Your task to perform on an android device: star an email in the gmail app Image 0: 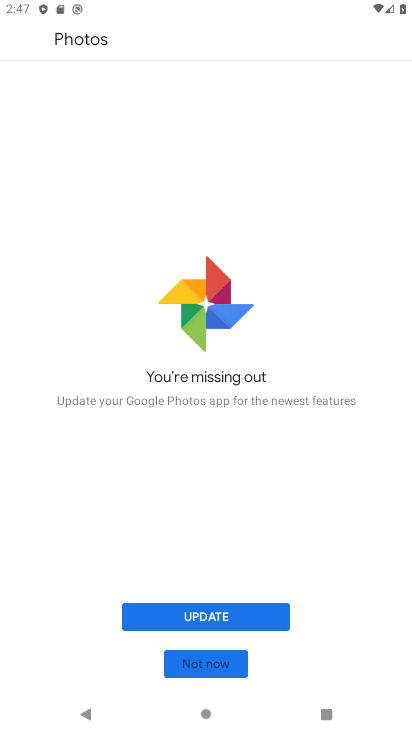
Step 0: press home button
Your task to perform on an android device: star an email in the gmail app Image 1: 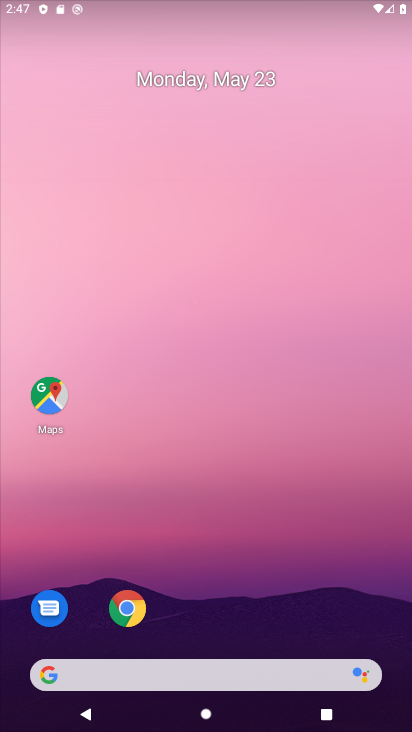
Step 1: drag from (253, 540) to (315, 209)
Your task to perform on an android device: star an email in the gmail app Image 2: 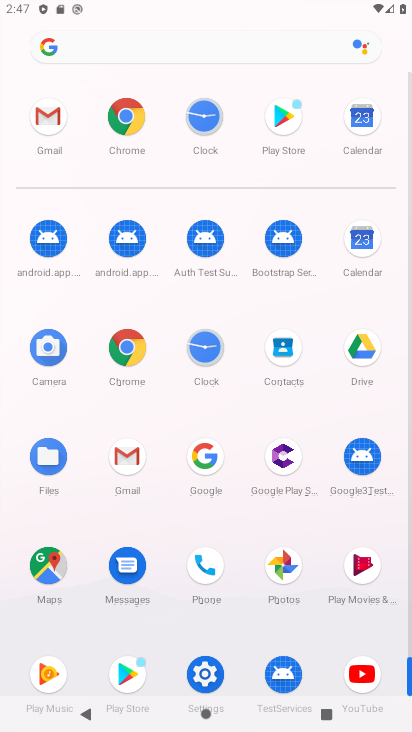
Step 2: click (119, 456)
Your task to perform on an android device: star an email in the gmail app Image 3: 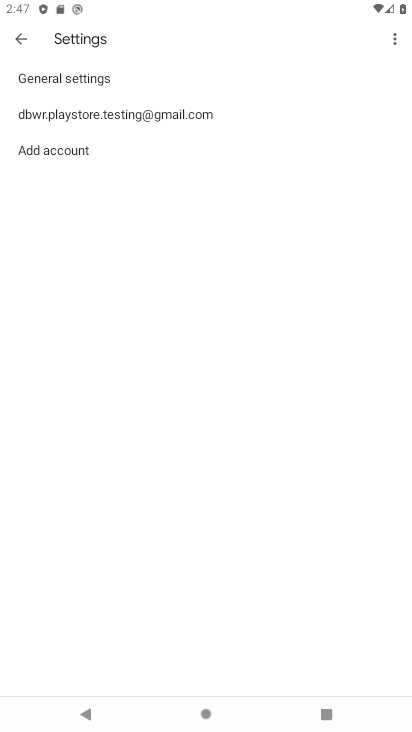
Step 3: click (20, 45)
Your task to perform on an android device: star an email in the gmail app Image 4: 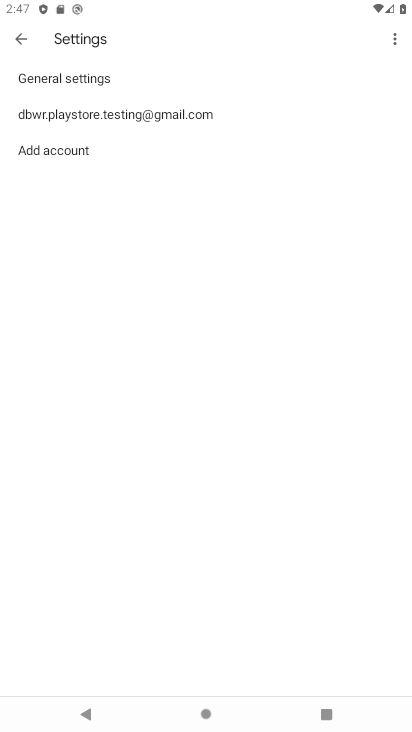
Step 4: click (27, 43)
Your task to perform on an android device: star an email in the gmail app Image 5: 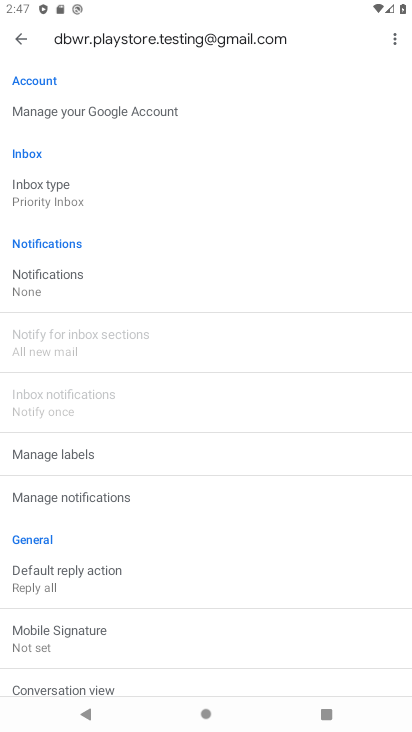
Step 5: drag from (150, 173) to (165, 549)
Your task to perform on an android device: star an email in the gmail app Image 6: 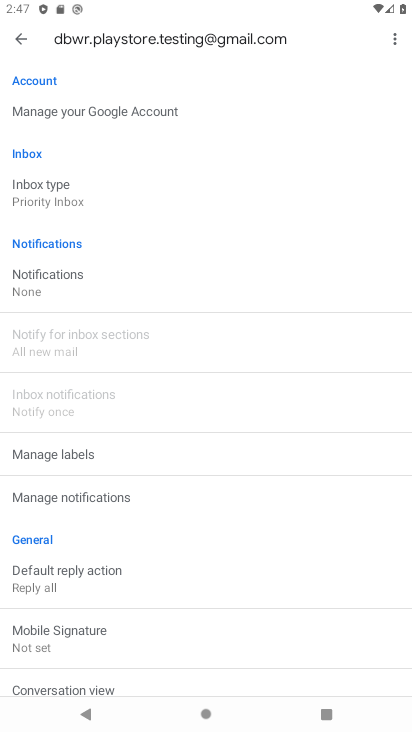
Step 6: click (22, 44)
Your task to perform on an android device: star an email in the gmail app Image 7: 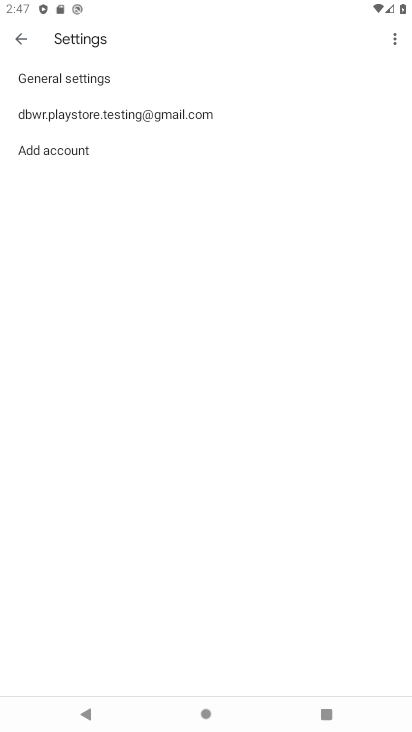
Step 7: click (87, 715)
Your task to perform on an android device: star an email in the gmail app Image 8: 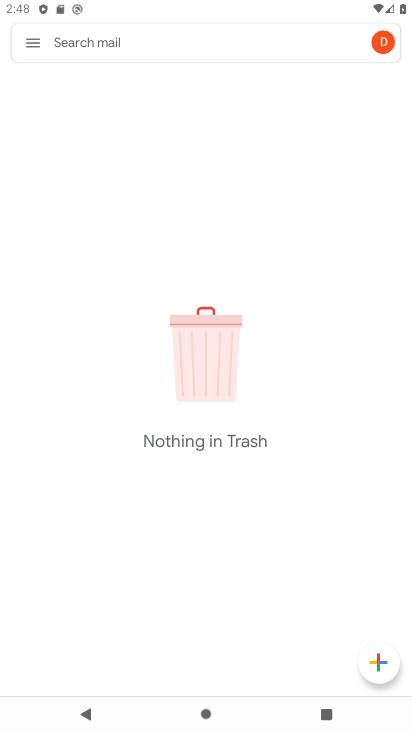
Step 8: click (38, 38)
Your task to perform on an android device: star an email in the gmail app Image 9: 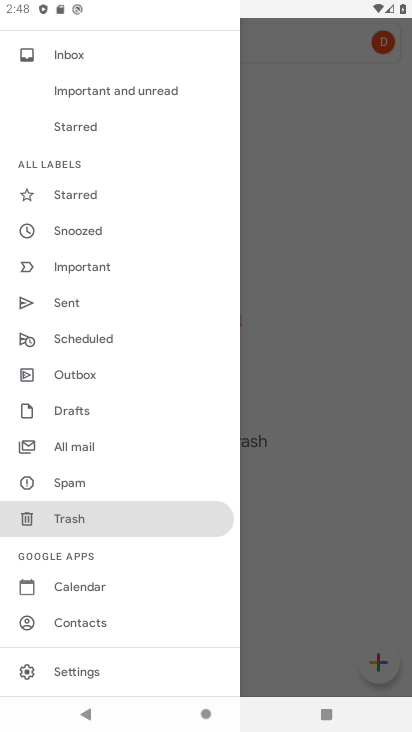
Step 9: click (104, 112)
Your task to perform on an android device: star an email in the gmail app Image 10: 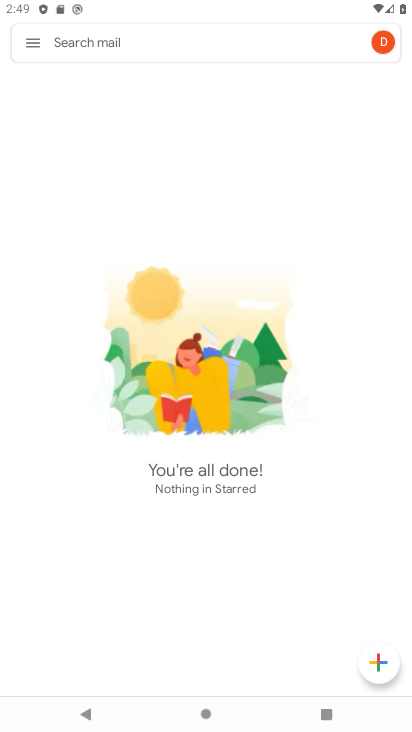
Step 10: task complete